Your task to perform on an android device: move a message to another label in the gmail app Image 0: 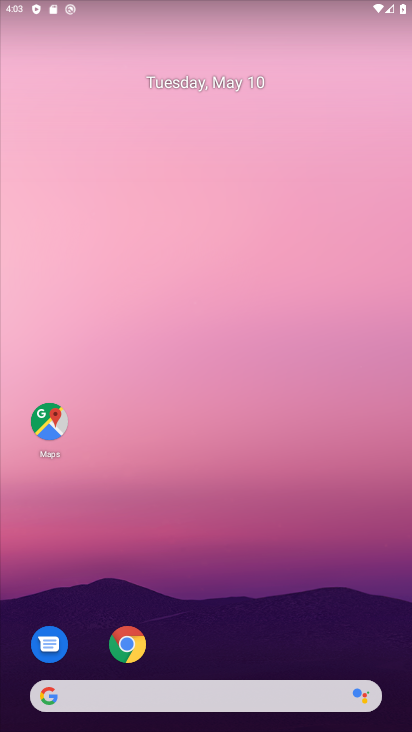
Step 0: drag from (229, 678) to (228, 375)
Your task to perform on an android device: move a message to another label in the gmail app Image 1: 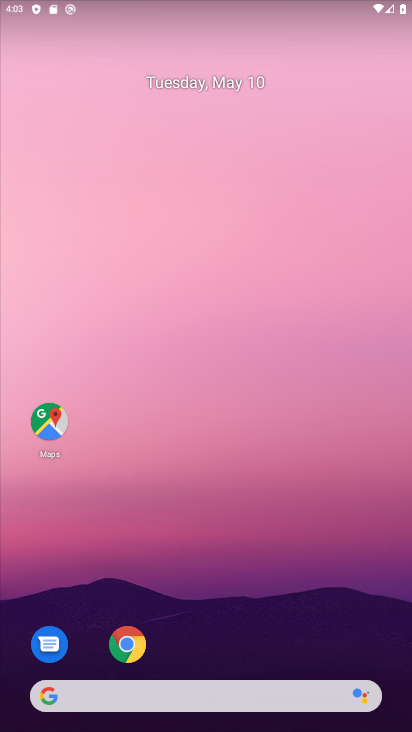
Step 1: drag from (198, 678) to (230, 253)
Your task to perform on an android device: move a message to another label in the gmail app Image 2: 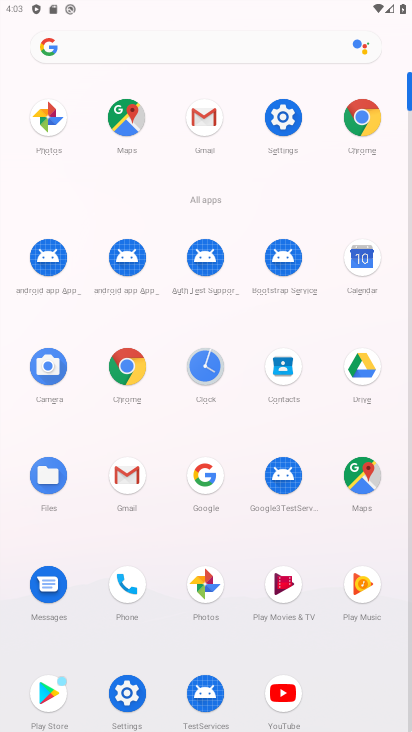
Step 2: click (188, 117)
Your task to perform on an android device: move a message to another label in the gmail app Image 3: 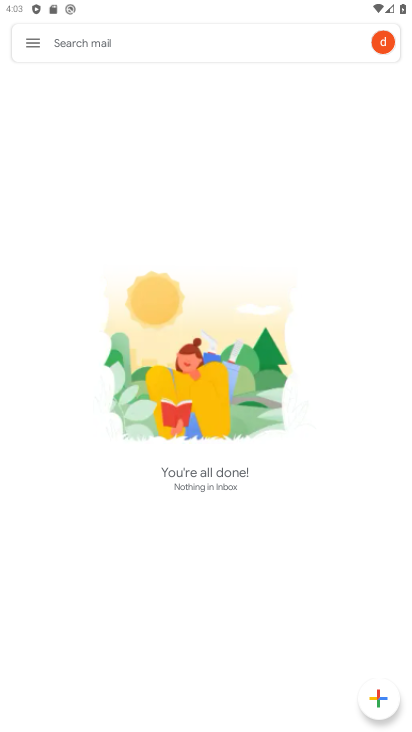
Step 3: task complete